Your task to perform on an android device: all mails in gmail Image 0: 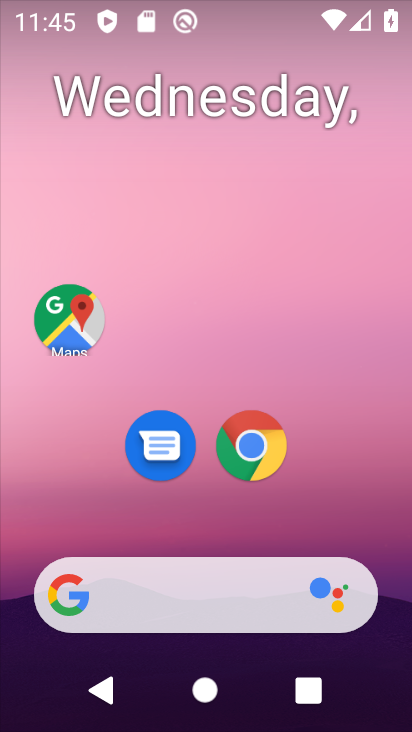
Step 0: drag from (377, 465) to (355, 107)
Your task to perform on an android device: all mails in gmail Image 1: 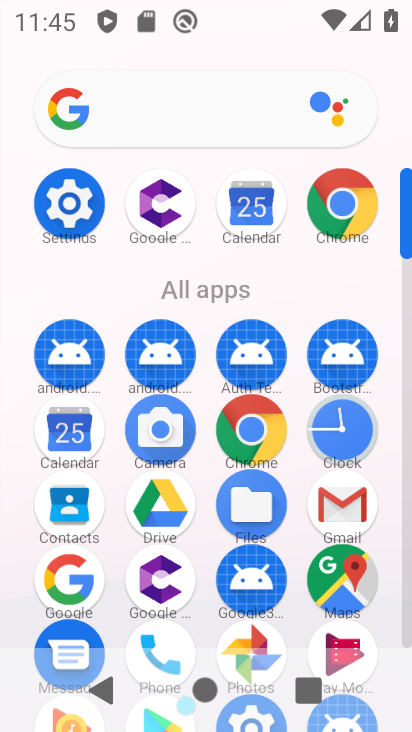
Step 1: click (337, 496)
Your task to perform on an android device: all mails in gmail Image 2: 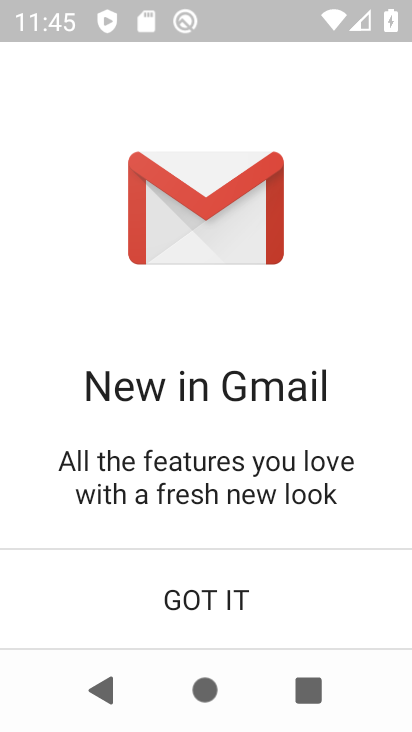
Step 2: click (257, 609)
Your task to perform on an android device: all mails in gmail Image 3: 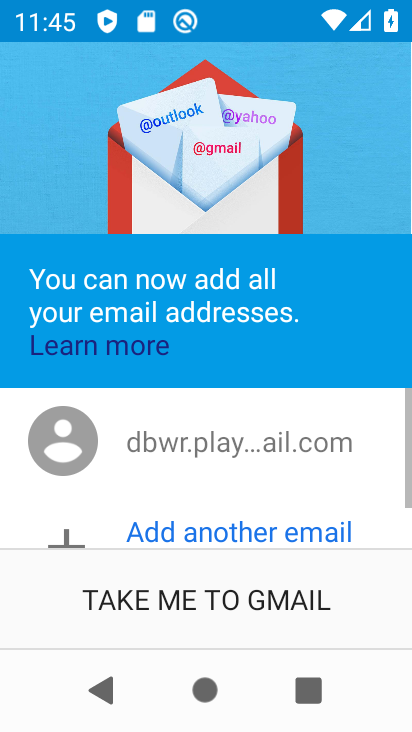
Step 3: click (179, 580)
Your task to perform on an android device: all mails in gmail Image 4: 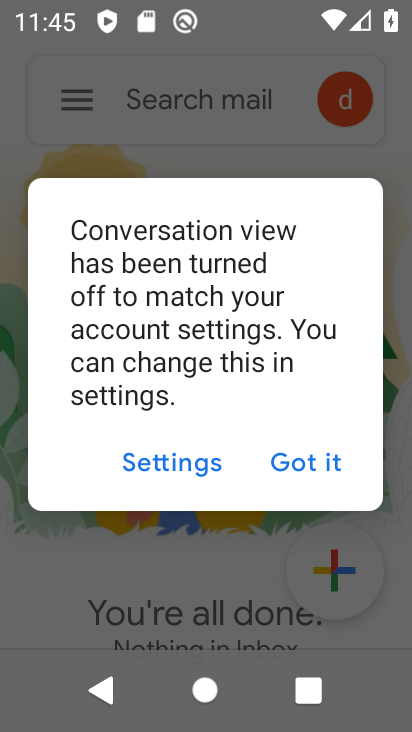
Step 4: click (301, 464)
Your task to perform on an android device: all mails in gmail Image 5: 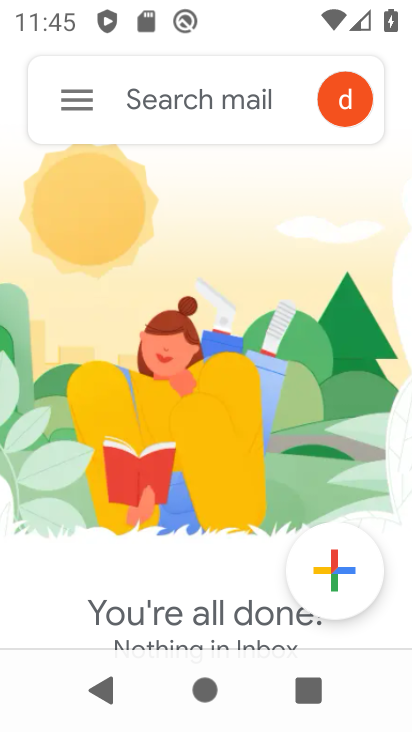
Step 5: click (66, 99)
Your task to perform on an android device: all mails in gmail Image 6: 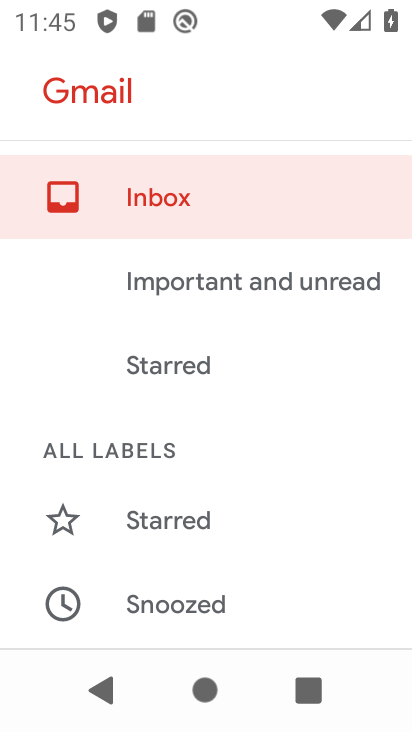
Step 6: drag from (176, 580) to (227, 45)
Your task to perform on an android device: all mails in gmail Image 7: 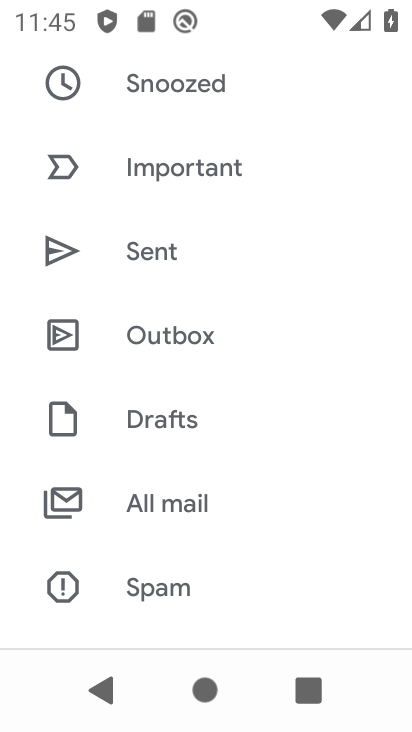
Step 7: click (172, 499)
Your task to perform on an android device: all mails in gmail Image 8: 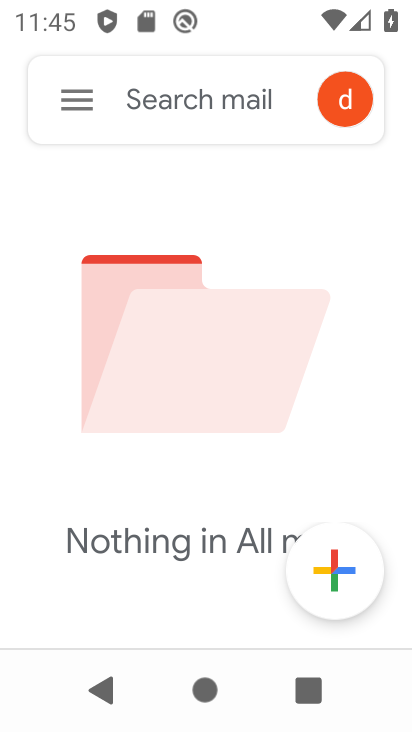
Step 8: task complete